Your task to perform on an android device: toggle location history Image 0: 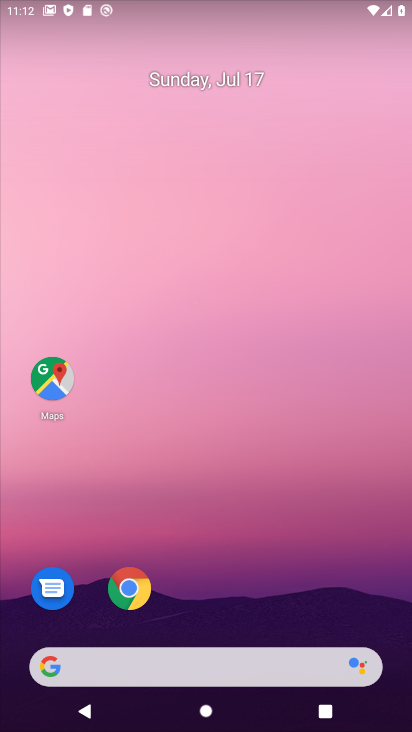
Step 0: drag from (196, 630) to (205, 191)
Your task to perform on an android device: toggle location history Image 1: 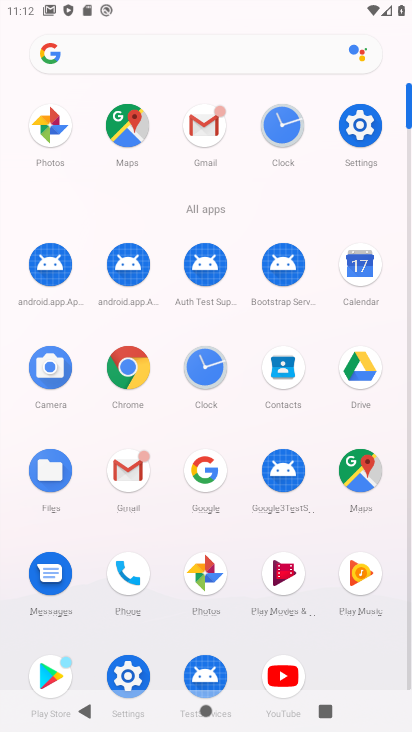
Step 1: click (128, 679)
Your task to perform on an android device: toggle location history Image 2: 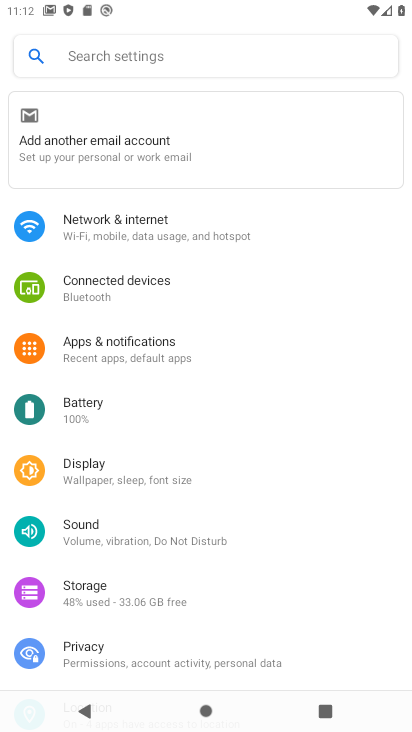
Step 2: drag from (66, 651) to (133, 323)
Your task to perform on an android device: toggle location history Image 3: 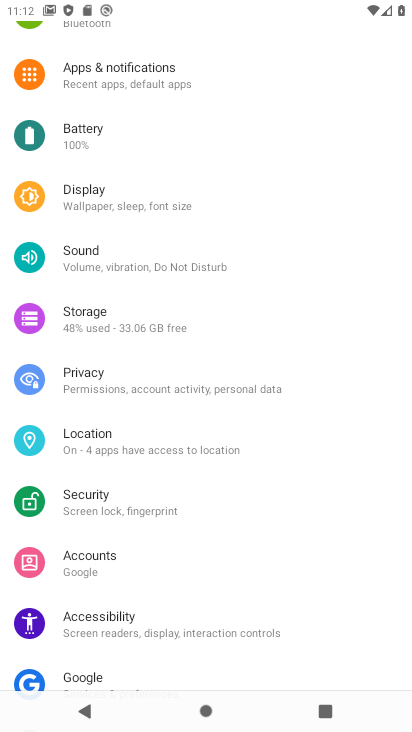
Step 3: click (105, 440)
Your task to perform on an android device: toggle location history Image 4: 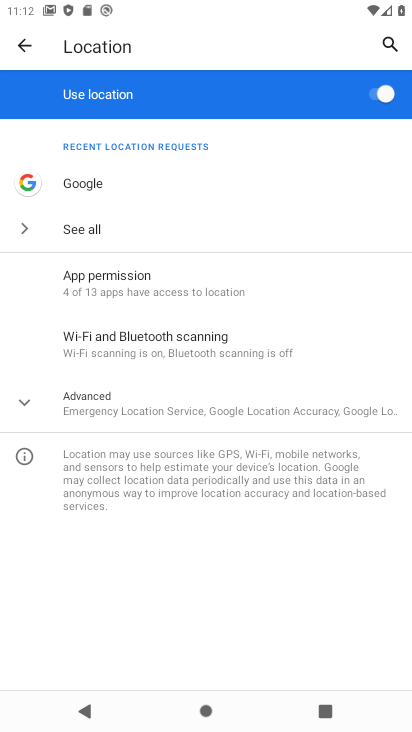
Step 4: click (145, 409)
Your task to perform on an android device: toggle location history Image 5: 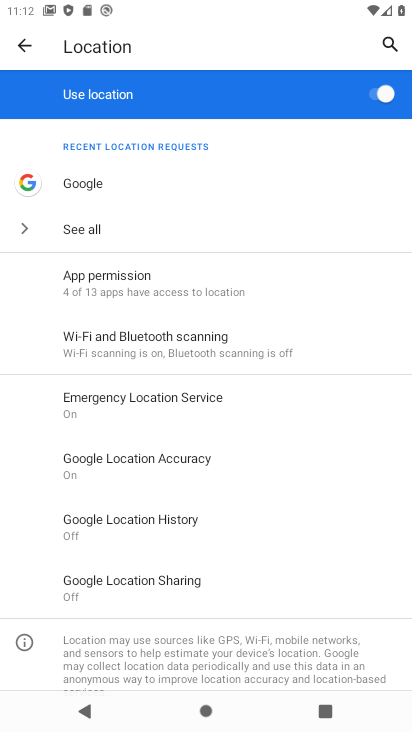
Step 5: click (202, 534)
Your task to perform on an android device: toggle location history Image 6: 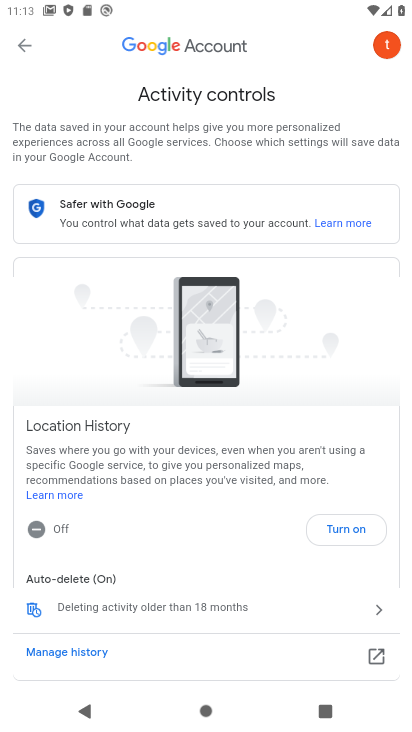
Step 6: click (356, 535)
Your task to perform on an android device: toggle location history Image 7: 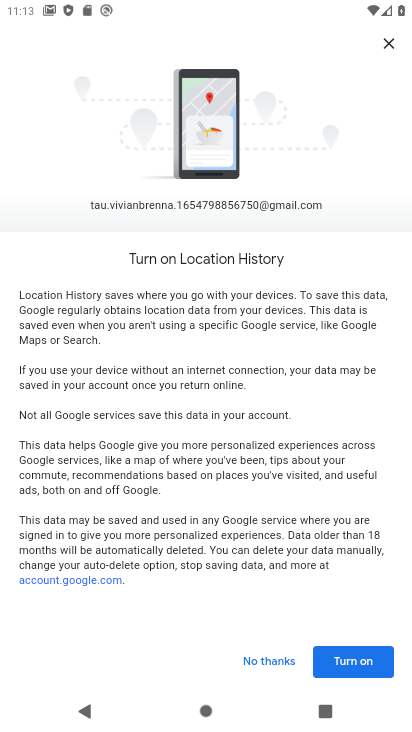
Step 7: click (384, 659)
Your task to perform on an android device: toggle location history Image 8: 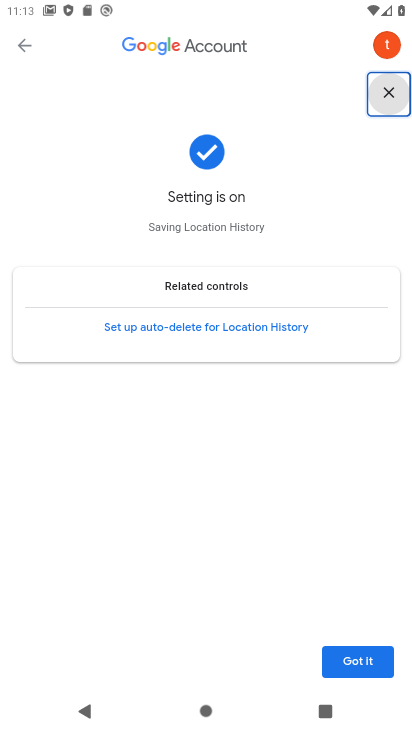
Step 8: click (395, 642)
Your task to perform on an android device: toggle location history Image 9: 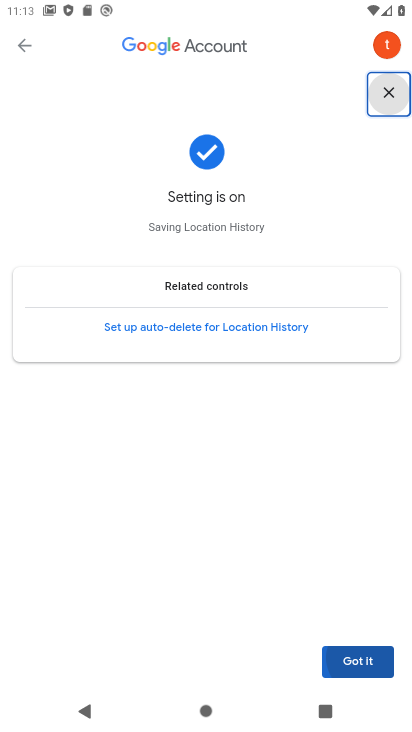
Step 9: click (379, 659)
Your task to perform on an android device: toggle location history Image 10: 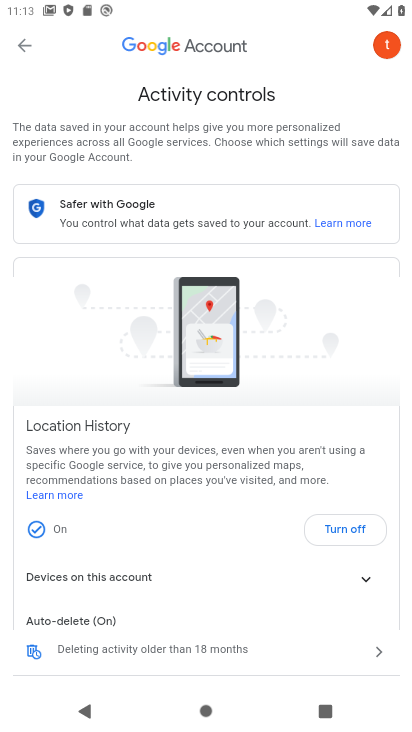
Step 10: task complete